Your task to perform on an android device: change your default location settings in chrome Image 0: 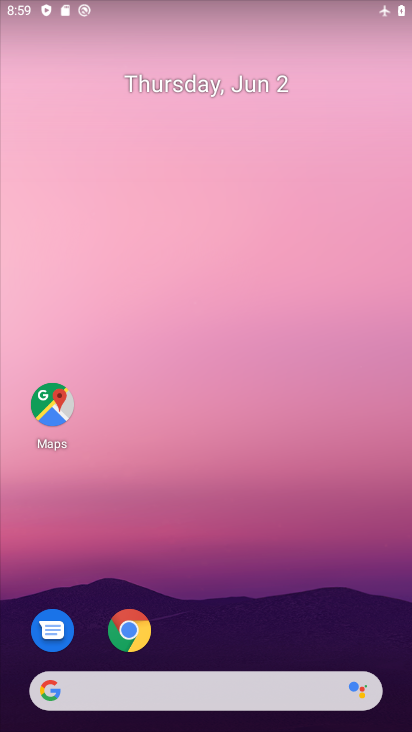
Step 0: drag from (227, 625) to (248, 91)
Your task to perform on an android device: change your default location settings in chrome Image 1: 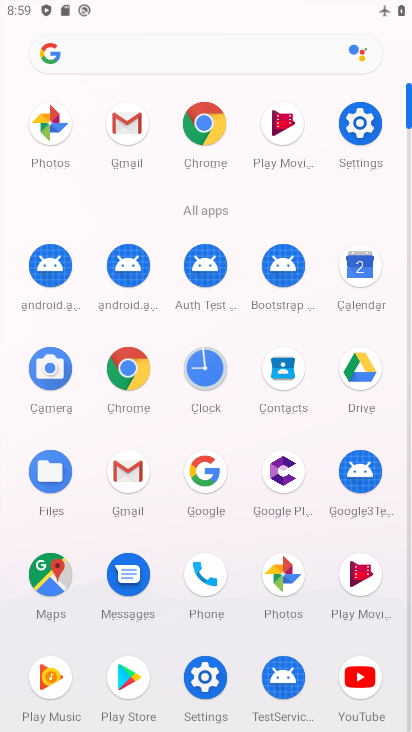
Step 1: click (205, 124)
Your task to perform on an android device: change your default location settings in chrome Image 2: 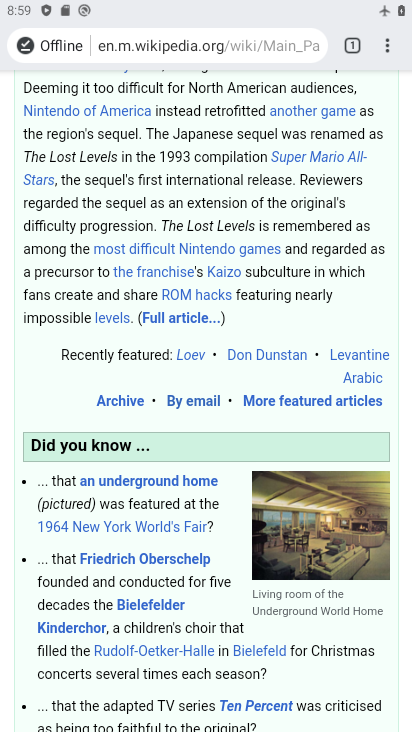
Step 2: click (384, 48)
Your task to perform on an android device: change your default location settings in chrome Image 3: 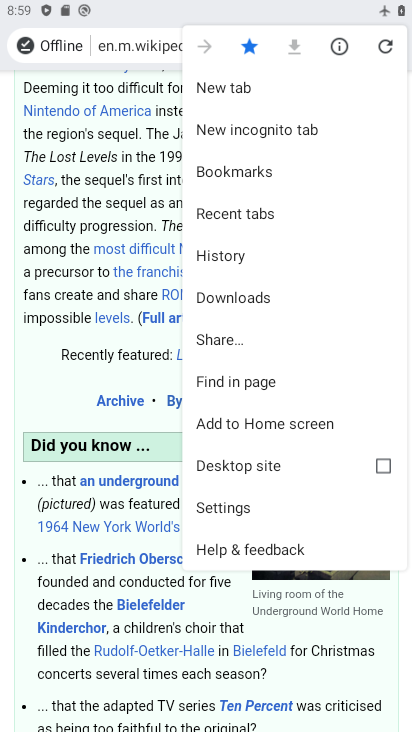
Step 3: click (237, 510)
Your task to perform on an android device: change your default location settings in chrome Image 4: 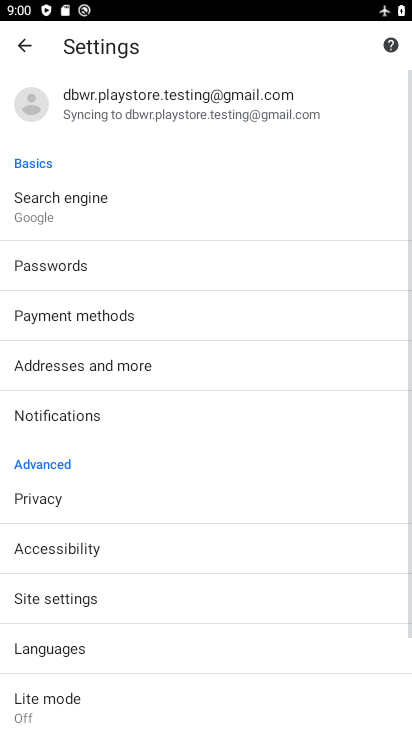
Step 4: click (88, 591)
Your task to perform on an android device: change your default location settings in chrome Image 5: 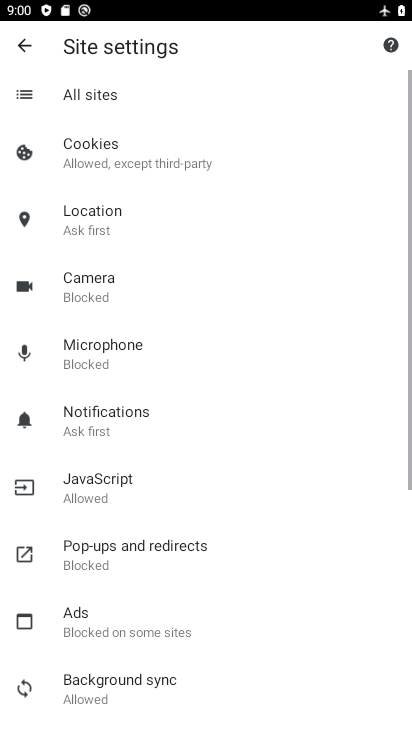
Step 5: click (99, 221)
Your task to perform on an android device: change your default location settings in chrome Image 6: 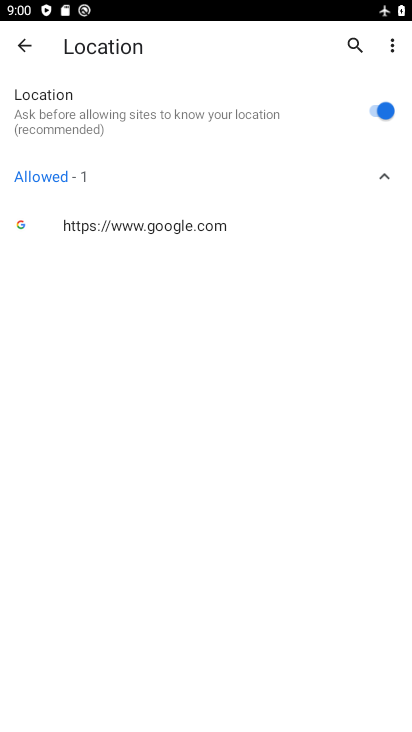
Step 6: click (384, 106)
Your task to perform on an android device: change your default location settings in chrome Image 7: 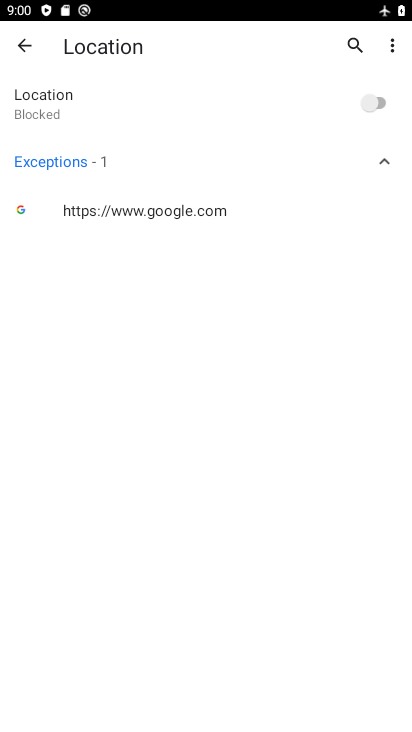
Step 7: task complete